Your task to perform on an android device: Search for the best rated mechanical keyboard on Amazon. Image 0: 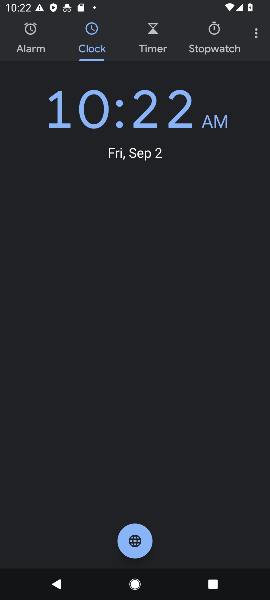
Step 0: press home button
Your task to perform on an android device: Search for the best rated mechanical keyboard on Amazon. Image 1: 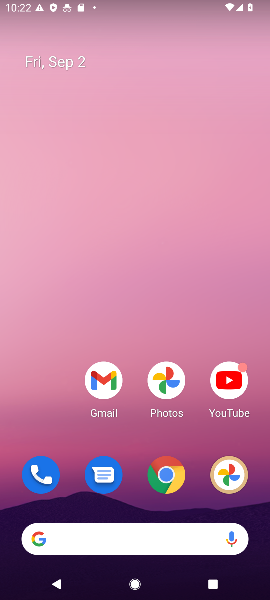
Step 1: click (167, 473)
Your task to perform on an android device: Search for the best rated mechanical keyboard on Amazon. Image 2: 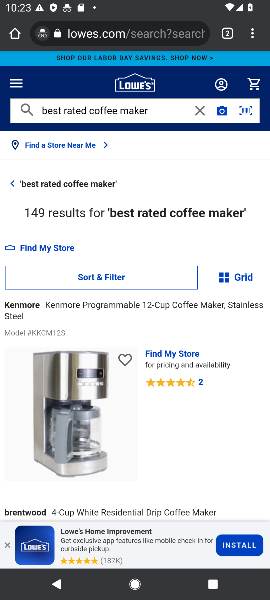
Step 2: click (223, 31)
Your task to perform on an android device: Search for the best rated mechanical keyboard on Amazon. Image 3: 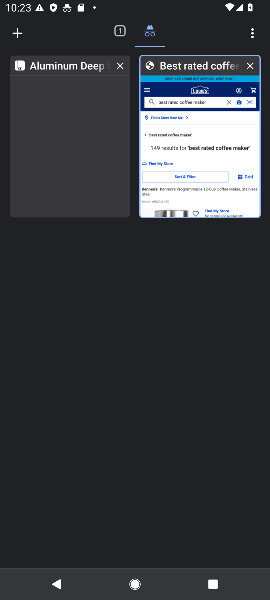
Step 3: click (246, 67)
Your task to perform on an android device: Search for the best rated mechanical keyboard on Amazon. Image 4: 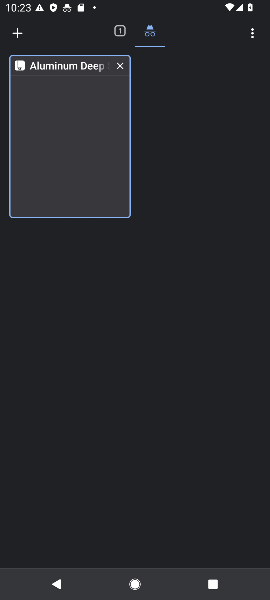
Step 4: click (119, 68)
Your task to perform on an android device: Search for the best rated mechanical keyboard on Amazon. Image 5: 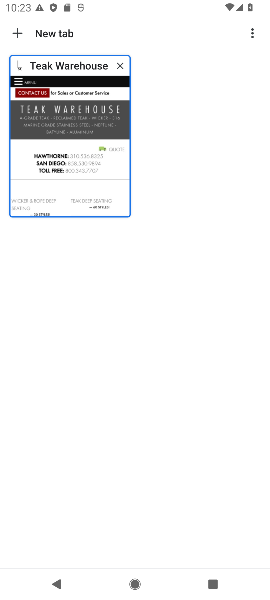
Step 5: click (12, 31)
Your task to perform on an android device: Search for the best rated mechanical keyboard on Amazon. Image 6: 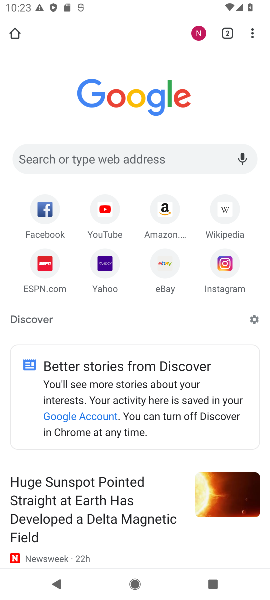
Step 6: click (165, 207)
Your task to perform on an android device: Search for the best rated mechanical keyboard on Amazon. Image 7: 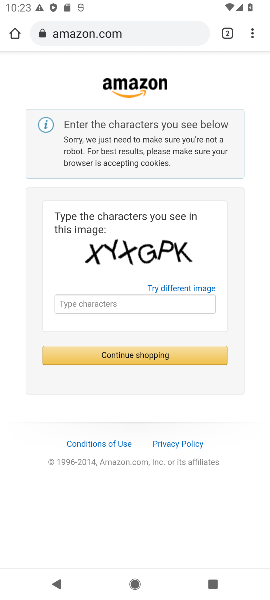
Step 7: click (133, 308)
Your task to perform on an android device: Search for the best rated mechanical keyboard on Amazon. Image 8: 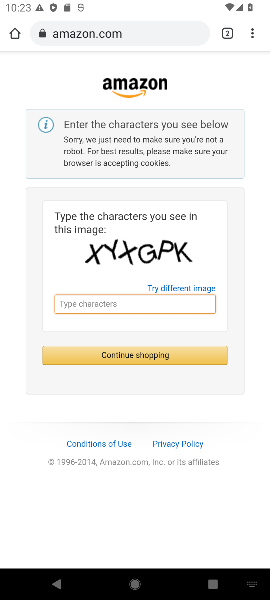
Step 8: click (133, 82)
Your task to perform on an android device: Search for the best rated mechanical keyboard on Amazon. Image 9: 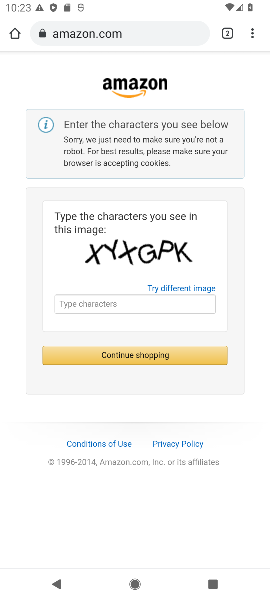
Step 9: click (133, 82)
Your task to perform on an android device: Search for the best rated mechanical keyboard on Amazon. Image 10: 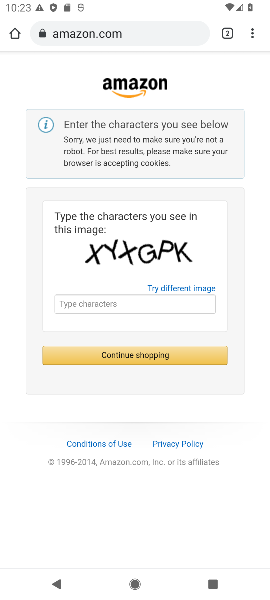
Step 10: click (133, 82)
Your task to perform on an android device: Search for the best rated mechanical keyboard on Amazon. Image 11: 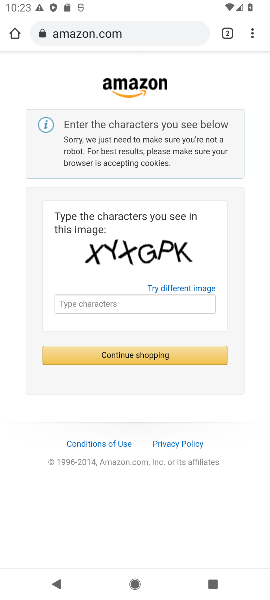
Step 11: click (133, 82)
Your task to perform on an android device: Search for the best rated mechanical keyboard on Amazon. Image 12: 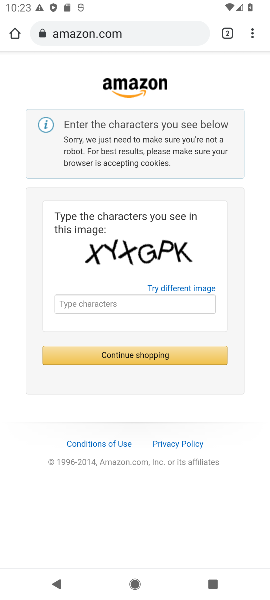
Step 12: click (133, 82)
Your task to perform on an android device: Search for the best rated mechanical keyboard on Amazon. Image 13: 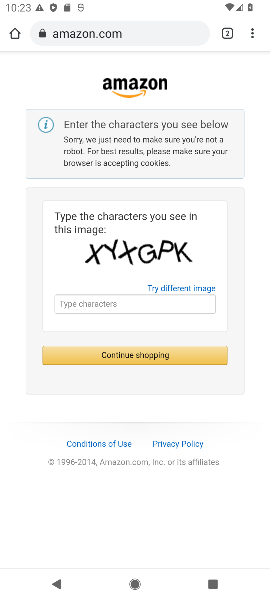
Step 13: click (133, 82)
Your task to perform on an android device: Search for the best rated mechanical keyboard on Amazon. Image 14: 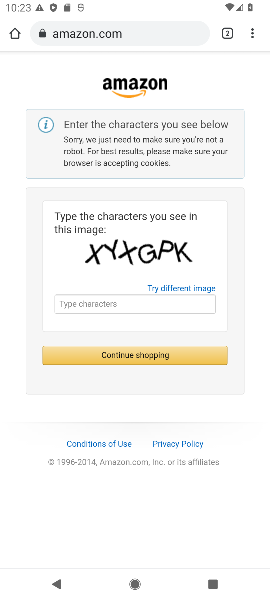
Step 14: click (133, 82)
Your task to perform on an android device: Search for the best rated mechanical keyboard on Amazon. Image 15: 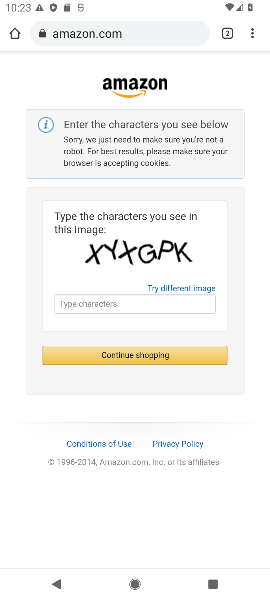
Step 15: click (133, 82)
Your task to perform on an android device: Search for the best rated mechanical keyboard on Amazon. Image 16: 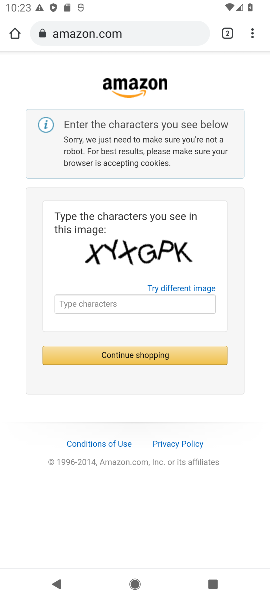
Step 16: click (200, 301)
Your task to perform on an android device: Search for the best rated mechanical keyboard on Amazon. Image 17: 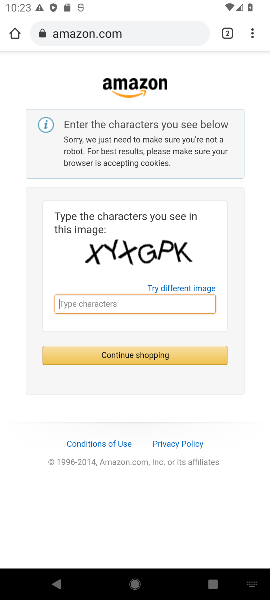
Step 17: type "xyxGPK"
Your task to perform on an android device: Search for the best rated mechanical keyboard on Amazon. Image 18: 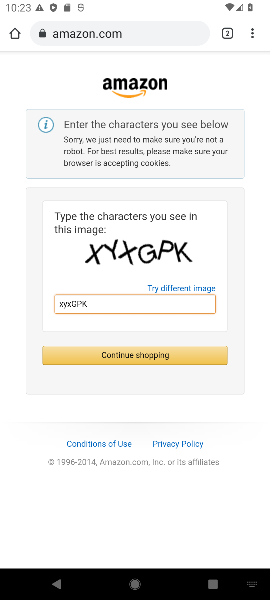
Step 18: click (145, 356)
Your task to perform on an android device: Search for the best rated mechanical keyboard on Amazon. Image 19: 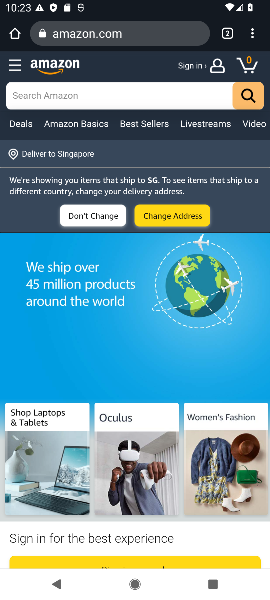
Step 19: click (102, 92)
Your task to perform on an android device: Search for the best rated mechanical keyboard on Amazon. Image 20: 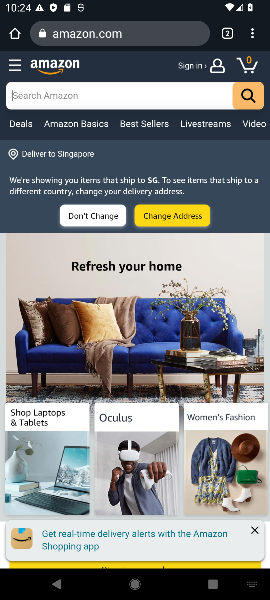
Step 20: type "the best rated mechanical keyboard"
Your task to perform on an android device: Search for the best rated mechanical keyboard on Amazon. Image 21: 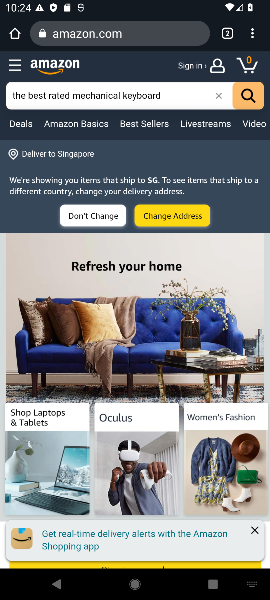
Step 21: click (246, 92)
Your task to perform on an android device: Search for the best rated mechanical keyboard on Amazon. Image 22: 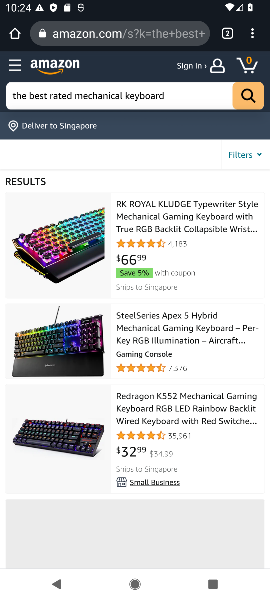
Step 22: task complete